Your task to perform on an android device: open app "Booking.com: Hotels and more" (install if not already installed) Image 0: 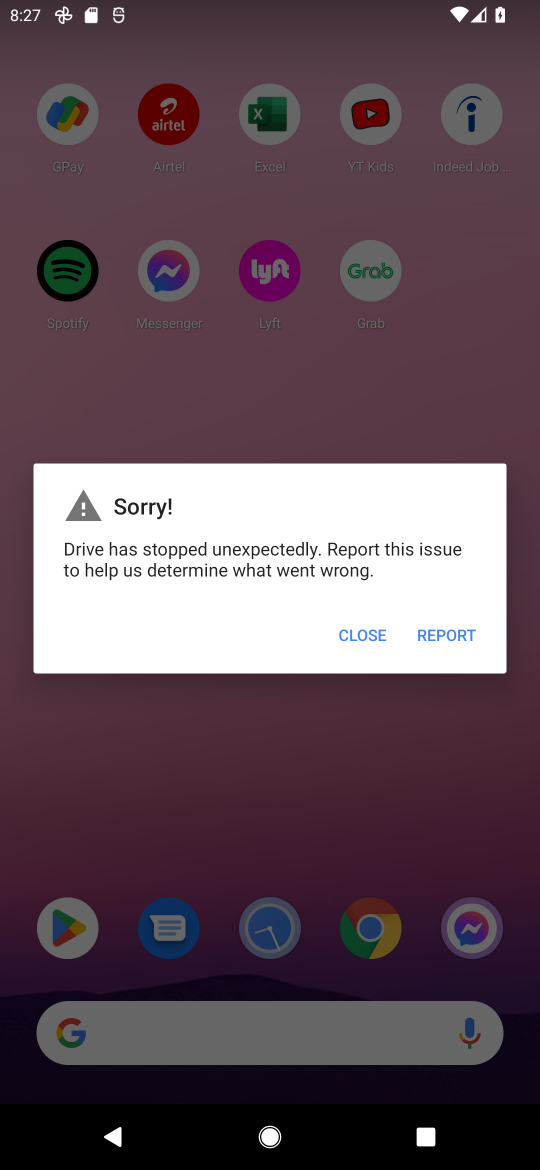
Step 0: press home button
Your task to perform on an android device: open app "Booking.com: Hotels and more" (install if not already installed) Image 1: 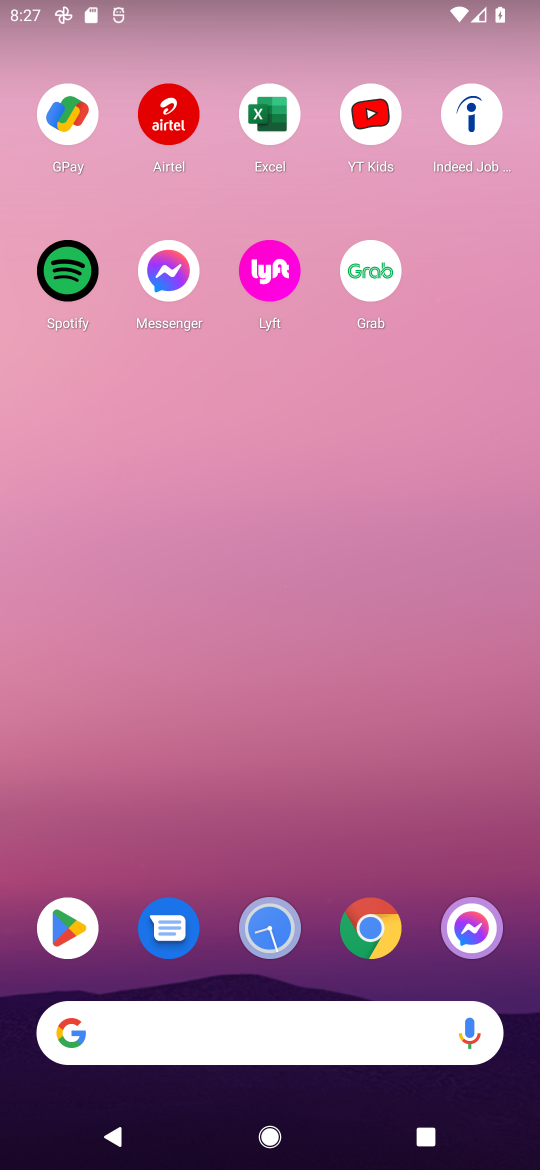
Step 1: click (64, 949)
Your task to perform on an android device: open app "Booking.com: Hotels and more" (install if not already installed) Image 2: 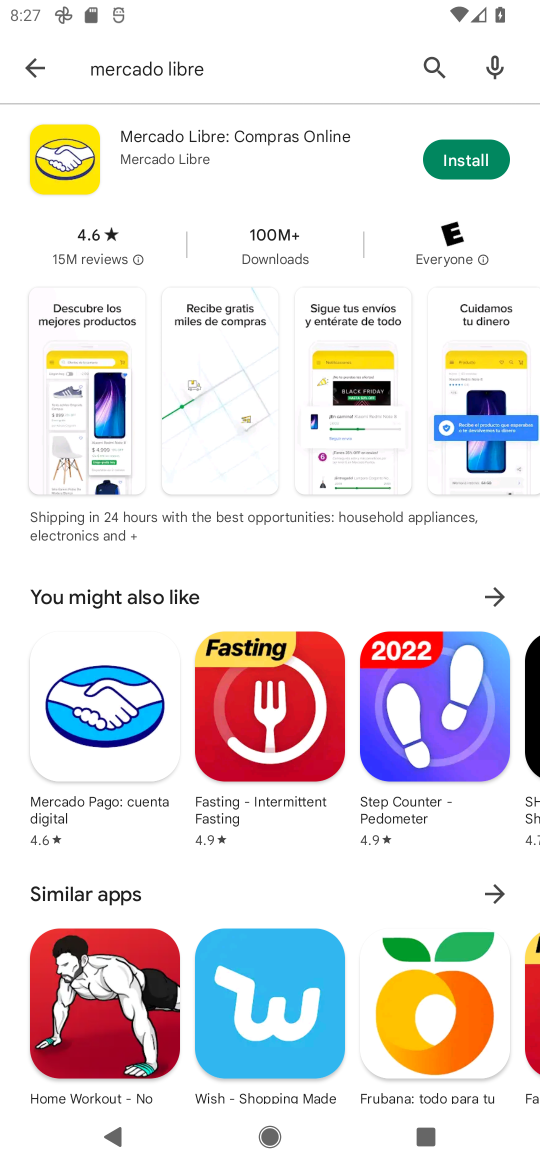
Step 2: click (445, 68)
Your task to perform on an android device: open app "Booking.com: Hotels and more" (install if not already installed) Image 3: 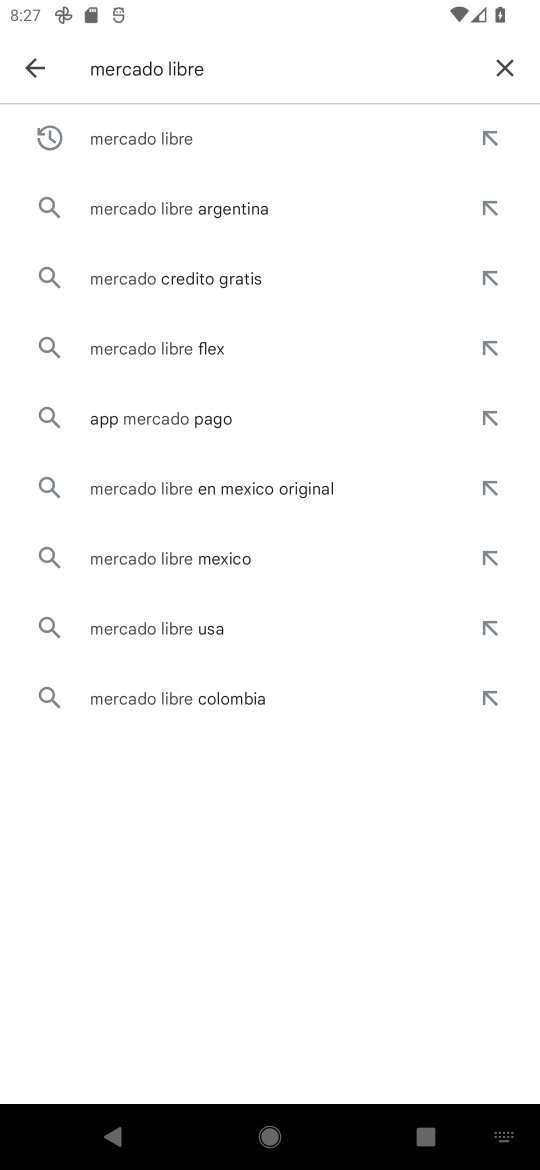
Step 3: click (503, 66)
Your task to perform on an android device: open app "Booking.com: Hotels and more" (install if not already installed) Image 4: 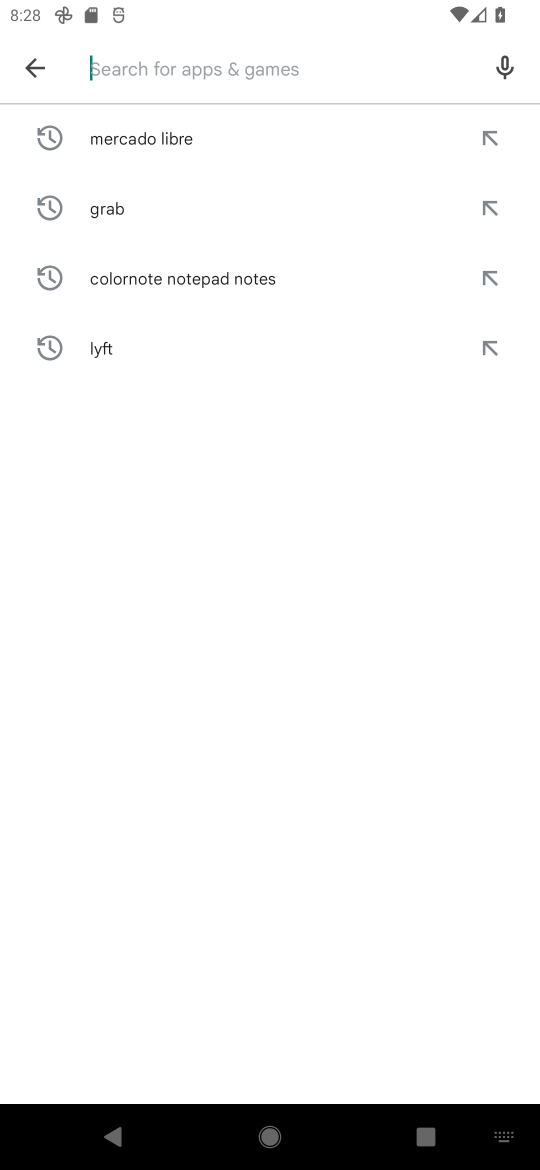
Step 4: type "booking.com "
Your task to perform on an android device: open app "Booking.com: Hotels and more" (install if not already installed) Image 5: 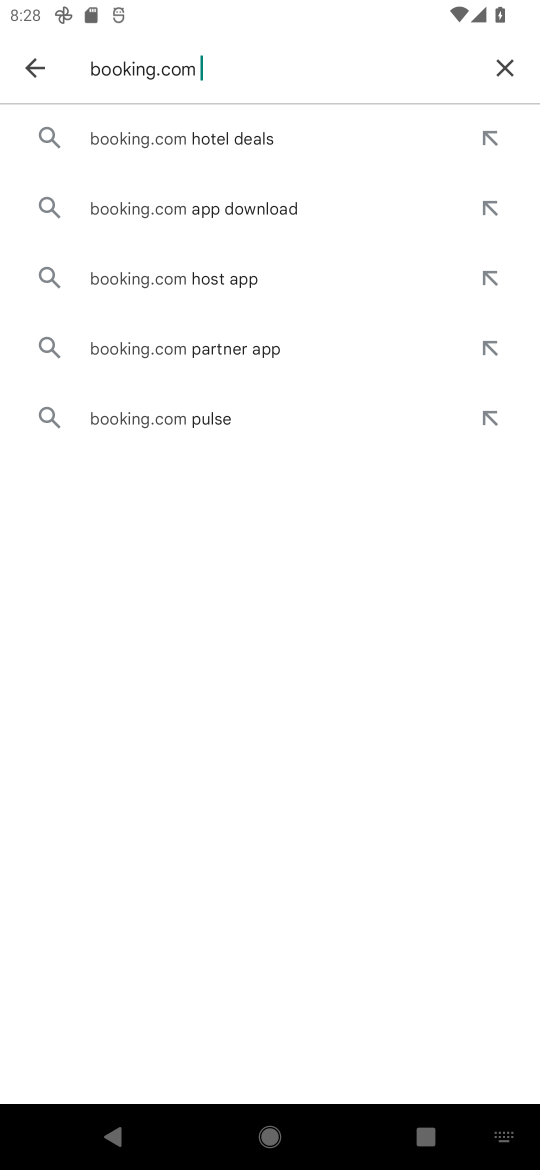
Step 5: click (281, 128)
Your task to perform on an android device: open app "Booking.com: Hotels and more" (install if not already installed) Image 6: 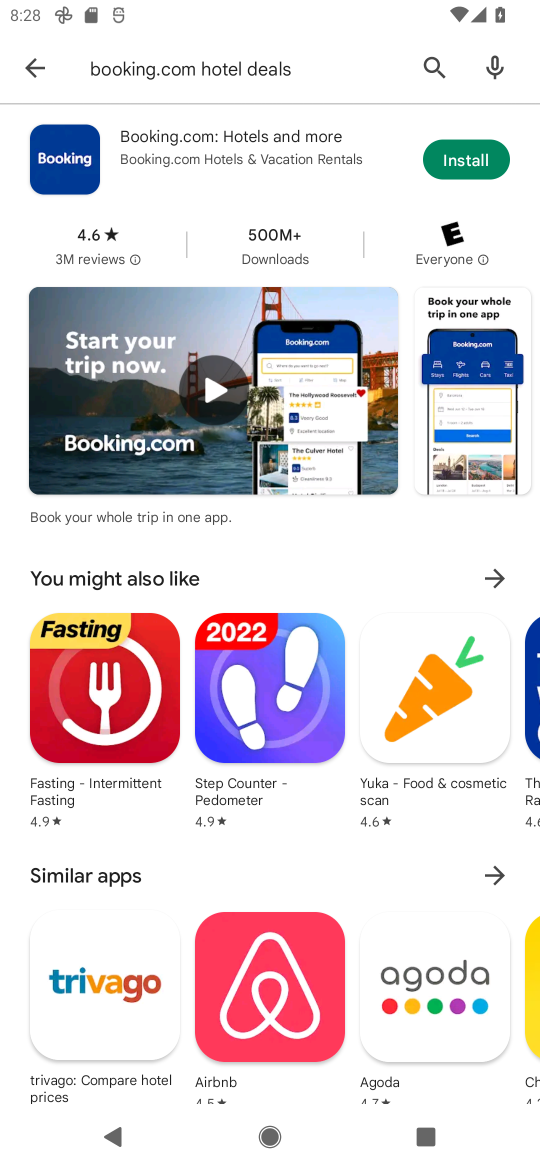
Step 6: click (444, 154)
Your task to perform on an android device: open app "Booking.com: Hotels and more" (install if not already installed) Image 7: 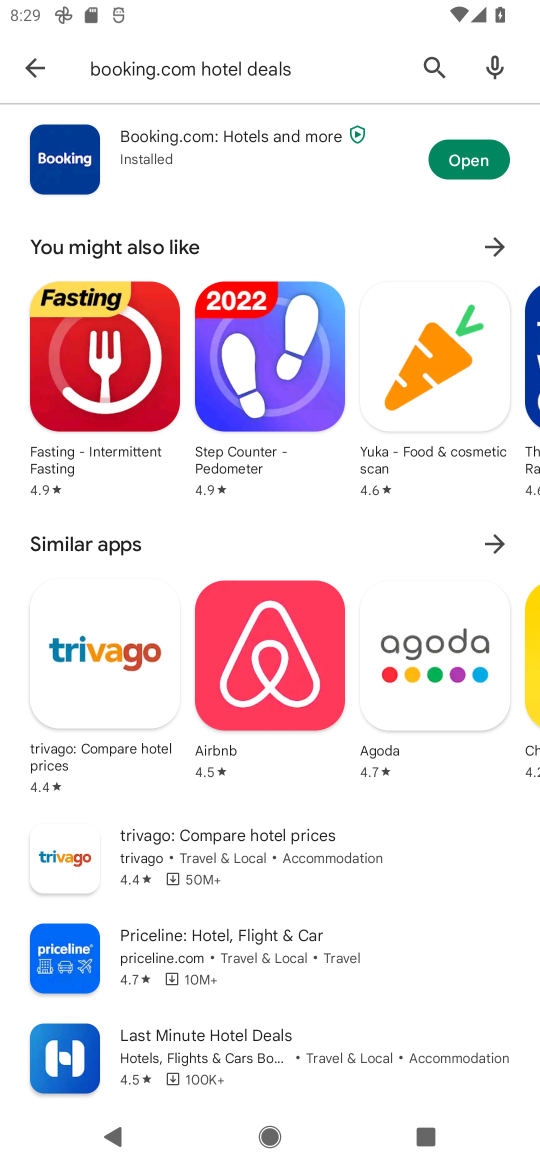
Step 7: click (482, 160)
Your task to perform on an android device: open app "Booking.com: Hotels and more" (install if not already installed) Image 8: 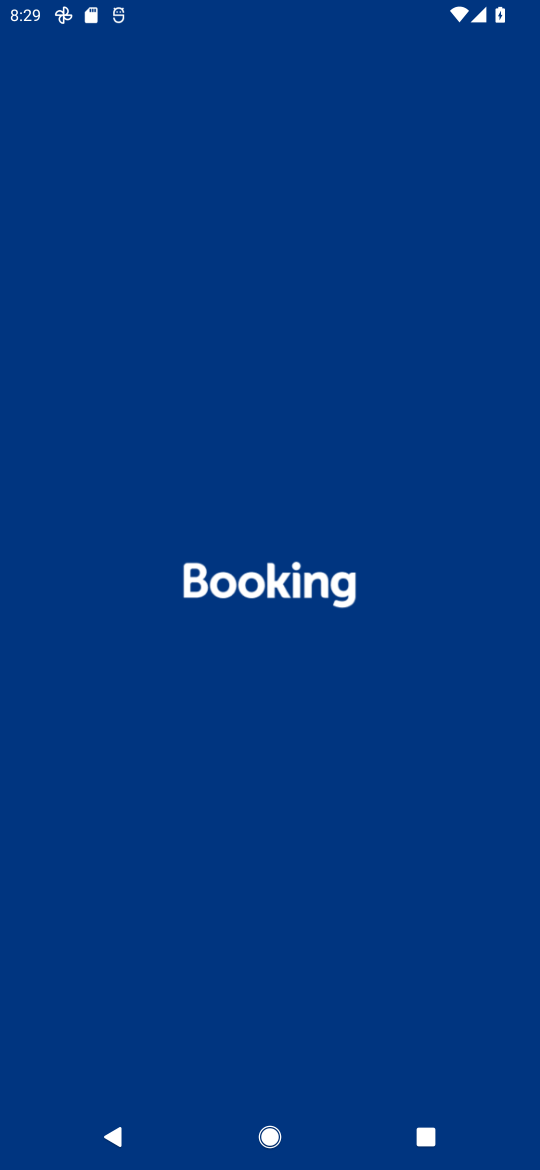
Step 8: task complete